Your task to perform on an android device: open a bookmark in the chrome app Image 0: 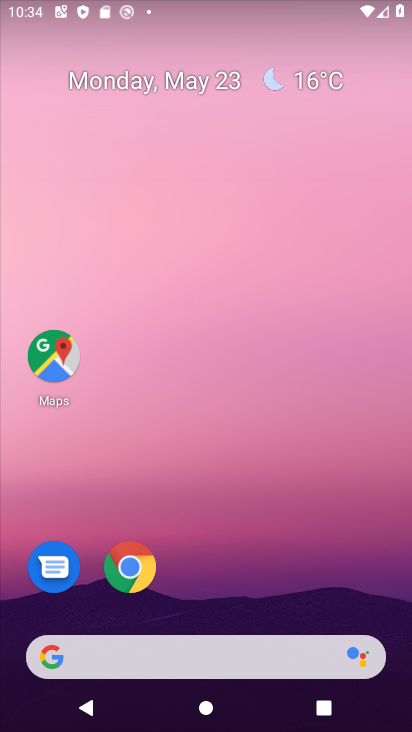
Step 0: click (127, 576)
Your task to perform on an android device: open a bookmark in the chrome app Image 1: 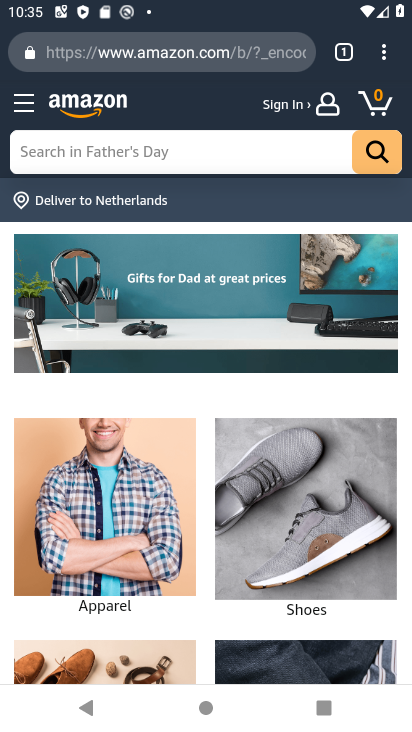
Step 1: click (386, 52)
Your task to perform on an android device: open a bookmark in the chrome app Image 2: 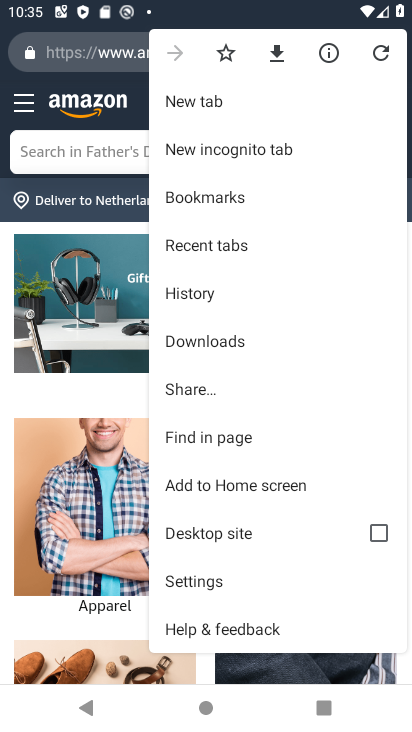
Step 2: click (217, 201)
Your task to perform on an android device: open a bookmark in the chrome app Image 3: 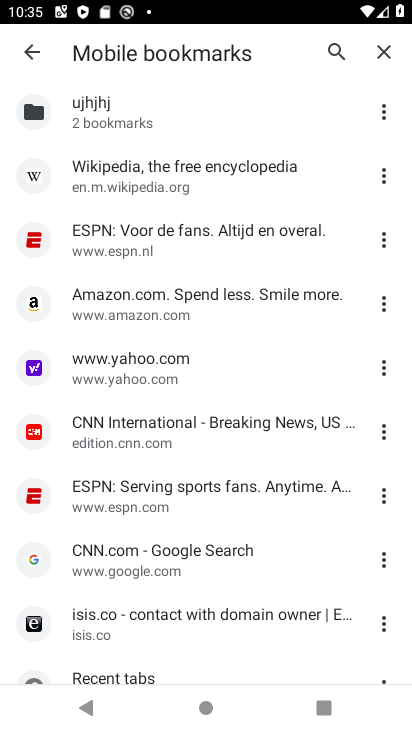
Step 3: task complete